Your task to perform on an android device: Open Android settings Image 0: 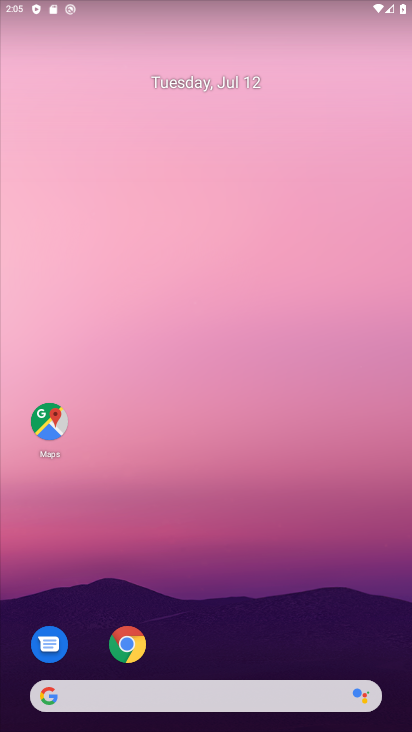
Step 0: drag from (359, 632) to (362, 198)
Your task to perform on an android device: Open Android settings Image 1: 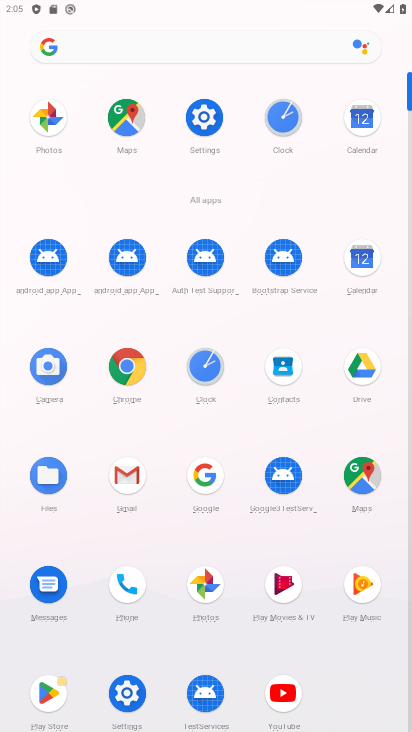
Step 1: click (208, 118)
Your task to perform on an android device: Open Android settings Image 2: 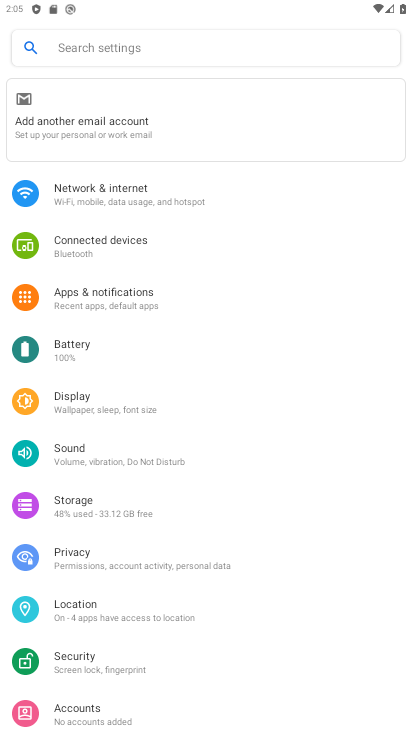
Step 2: drag from (292, 223) to (292, 379)
Your task to perform on an android device: Open Android settings Image 3: 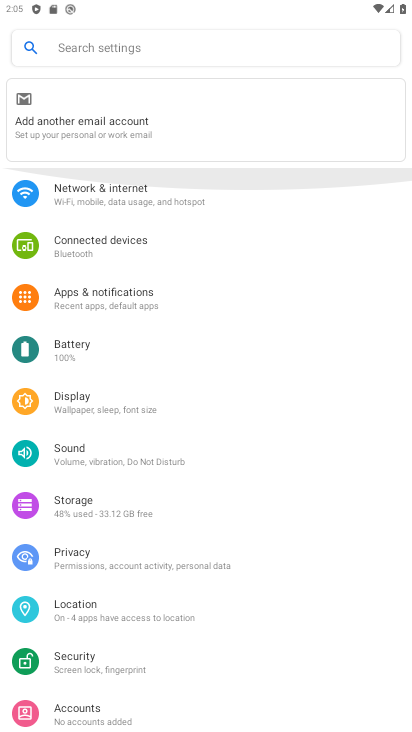
Step 3: drag from (297, 401) to (307, 317)
Your task to perform on an android device: Open Android settings Image 4: 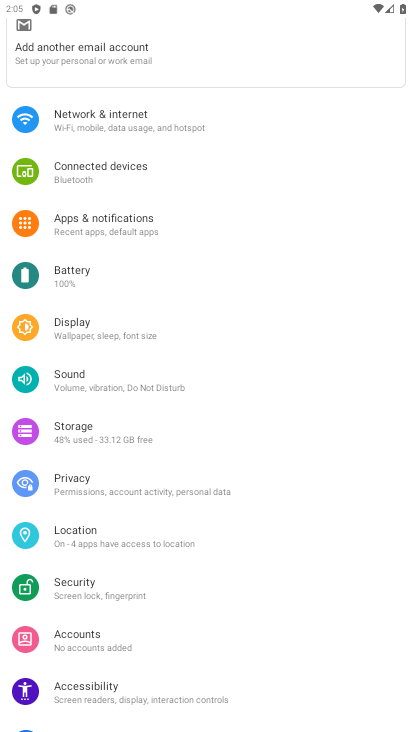
Step 4: drag from (312, 458) to (317, 368)
Your task to perform on an android device: Open Android settings Image 5: 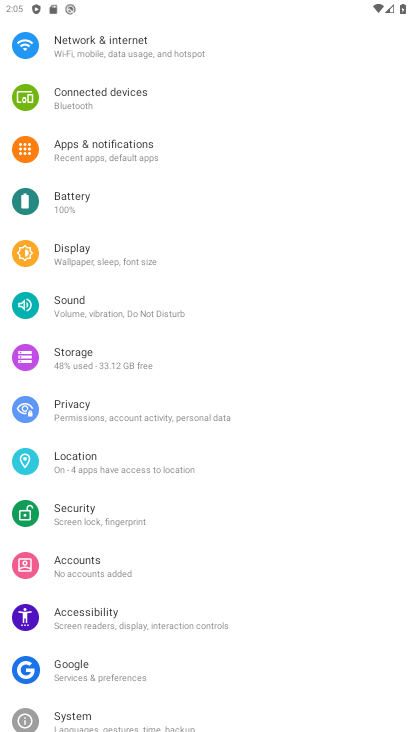
Step 5: drag from (323, 493) to (325, 372)
Your task to perform on an android device: Open Android settings Image 6: 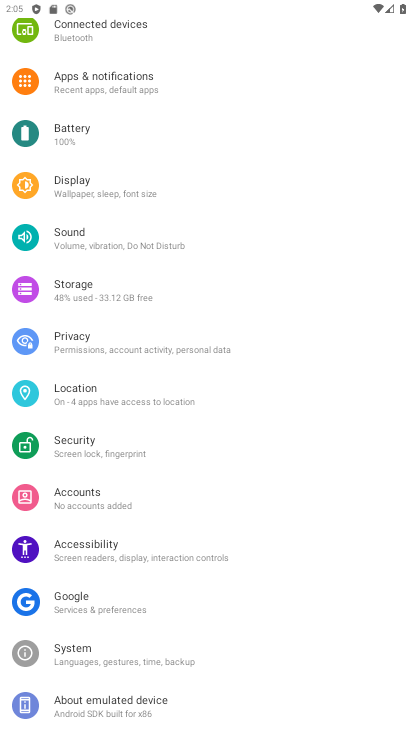
Step 6: drag from (321, 518) to (322, 401)
Your task to perform on an android device: Open Android settings Image 7: 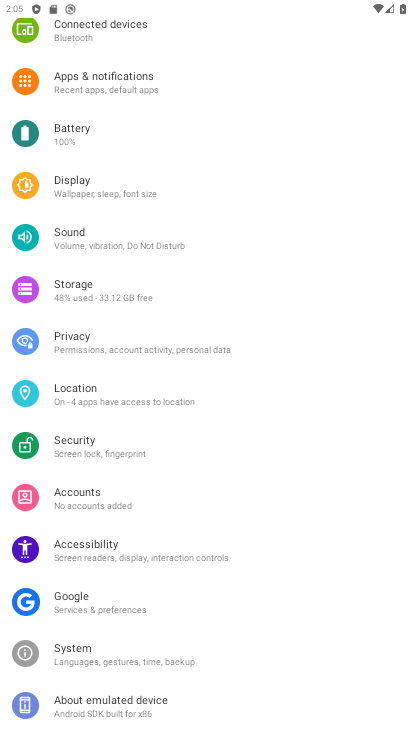
Step 7: click (268, 664)
Your task to perform on an android device: Open Android settings Image 8: 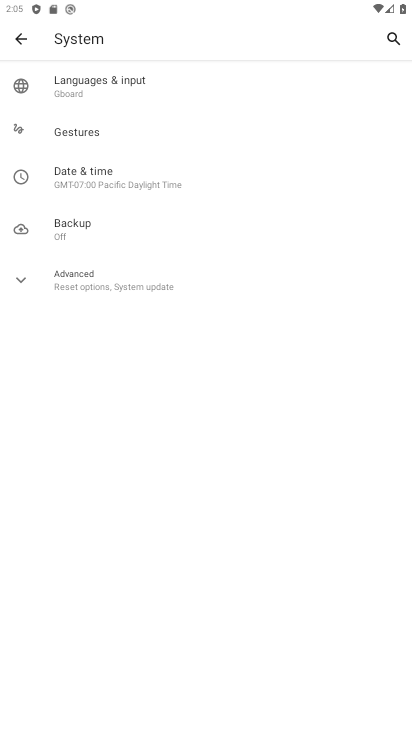
Step 8: click (168, 296)
Your task to perform on an android device: Open Android settings Image 9: 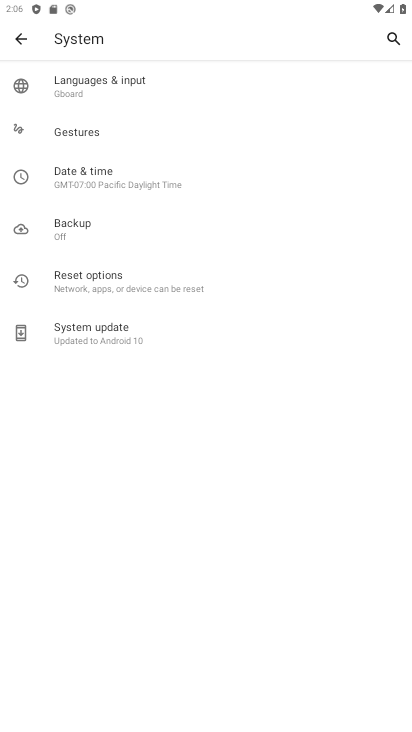
Step 9: task complete